Your task to perform on an android device: Open Yahoo.com Image 0: 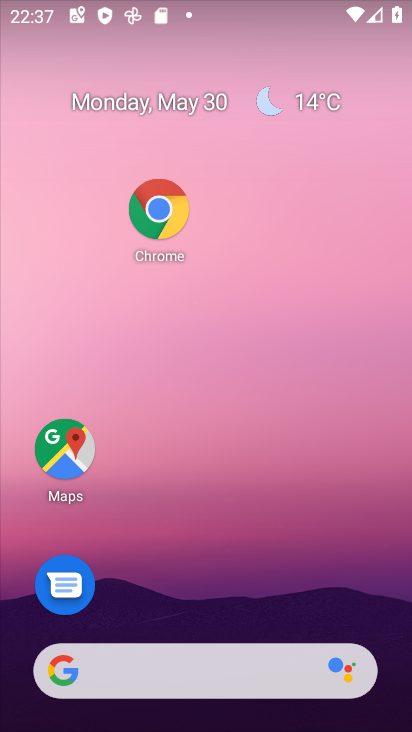
Step 0: click (410, 566)
Your task to perform on an android device: Open Yahoo.com Image 1: 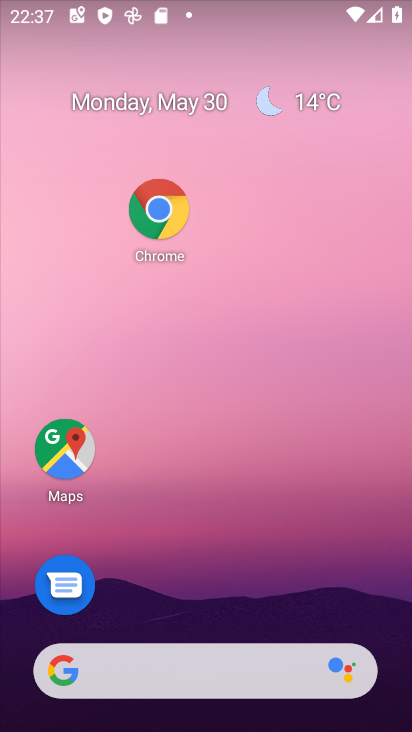
Step 1: click (154, 704)
Your task to perform on an android device: Open Yahoo.com Image 2: 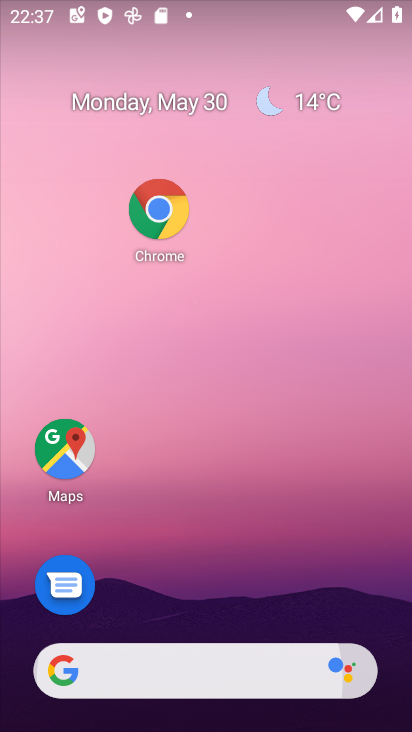
Step 2: click (145, 680)
Your task to perform on an android device: Open Yahoo.com Image 3: 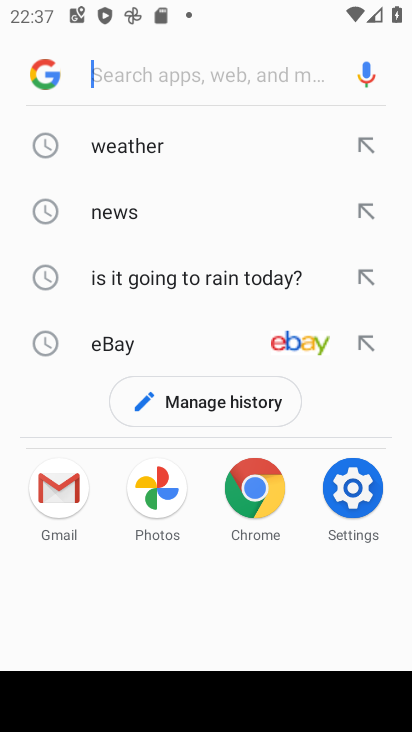
Step 3: type "Yahoo.com"
Your task to perform on an android device: Open Yahoo.com Image 4: 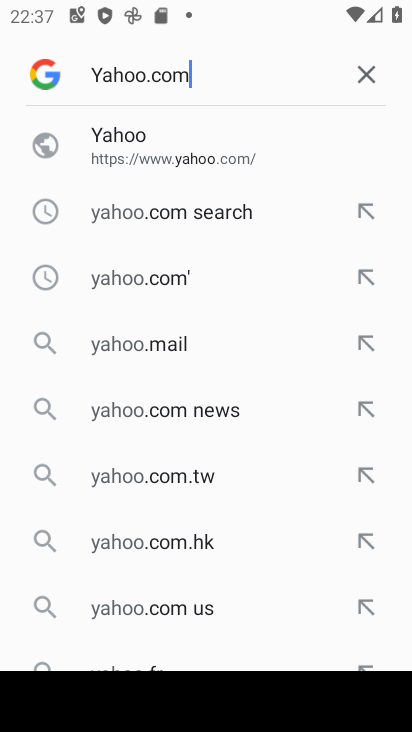
Step 4: type ""
Your task to perform on an android device: Open Yahoo.com Image 5: 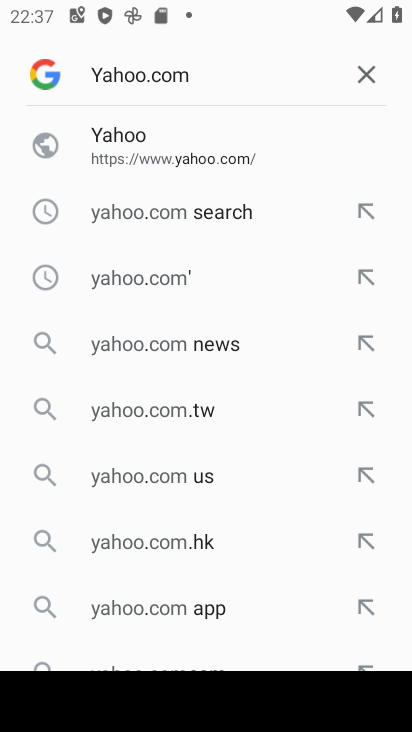
Step 5: click (149, 130)
Your task to perform on an android device: Open Yahoo.com Image 6: 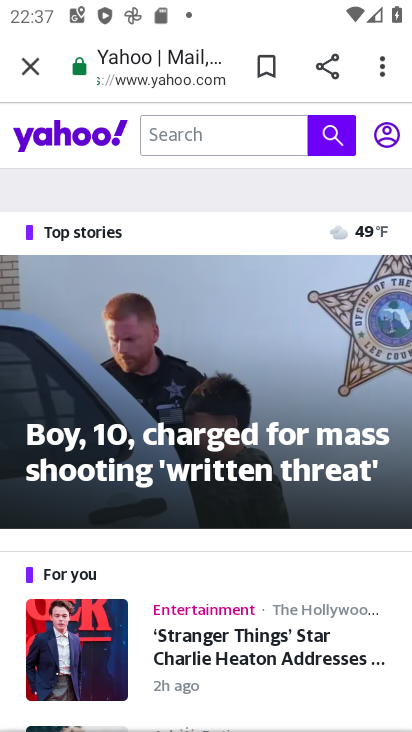
Step 6: task complete